Your task to perform on an android device: turn on location history Image 0: 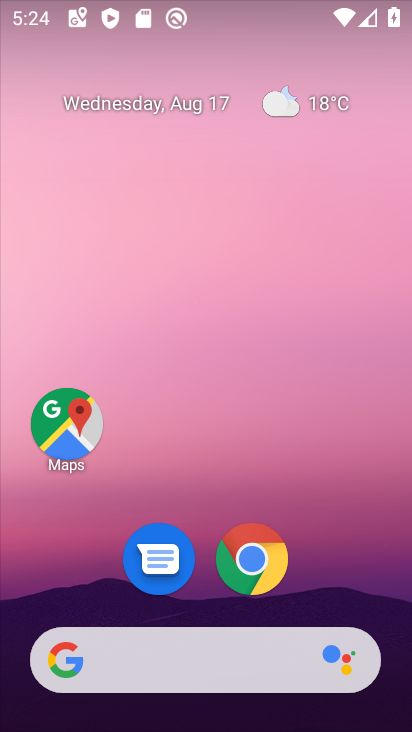
Step 0: drag from (238, 652) to (298, 175)
Your task to perform on an android device: turn on location history Image 1: 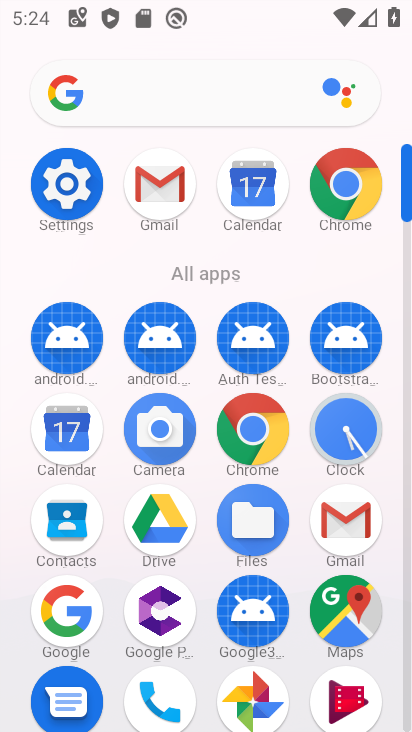
Step 1: click (63, 190)
Your task to perform on an android device: turn on location history Image 2: 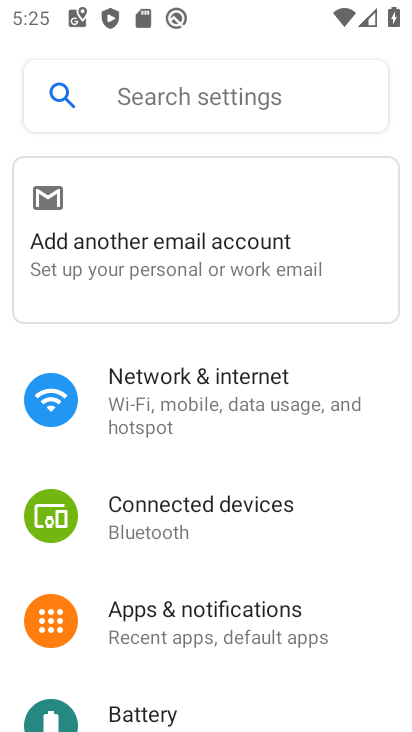
Step 2: drag from (278, 624) to (266, 170)
Your task to perform on an android device: turn on location history Image 3: 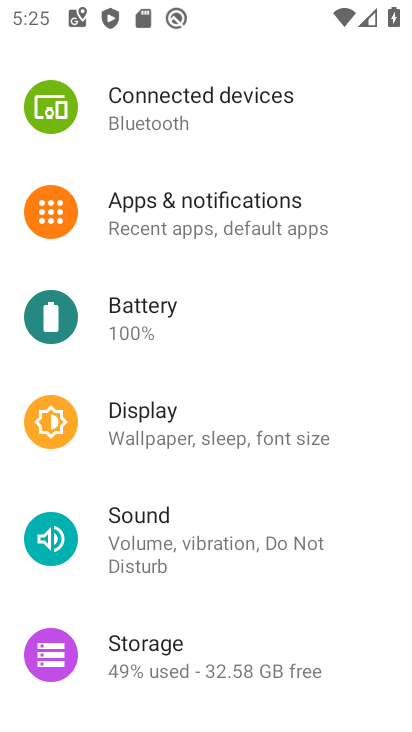
Step 3: drag from (165, 176) to (146, 606)
Your task to perform on an android device: turn on location history Image 4: 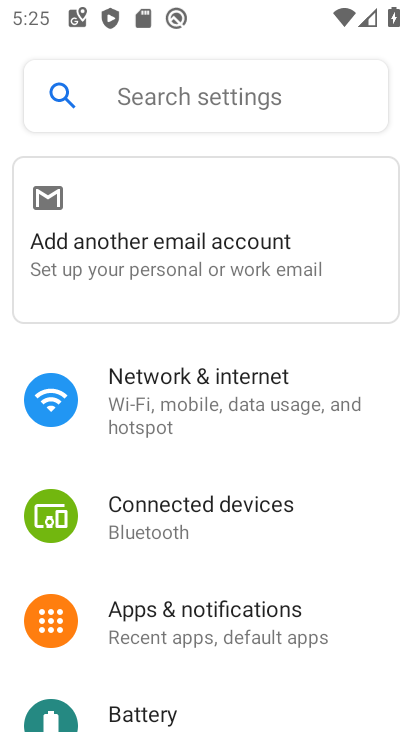
Step 4: drag from (146, 511) to (179, 45)
Your task to perform on an android device: turn on location history Image 5: 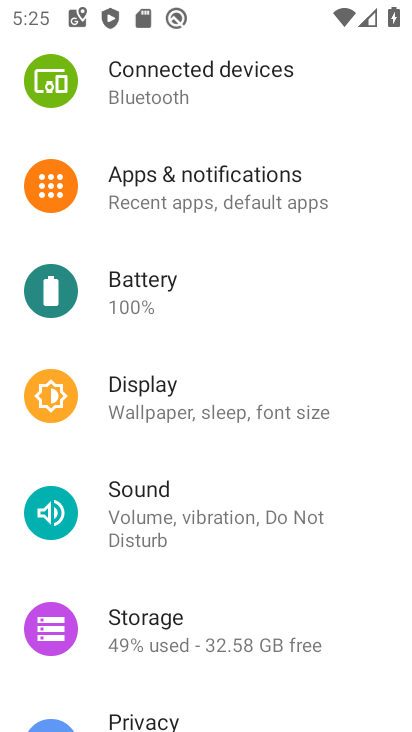
Step 5: drag from (181, 656) to (235, 223)
Your task to perform on an android device: turn on location history Image 6: 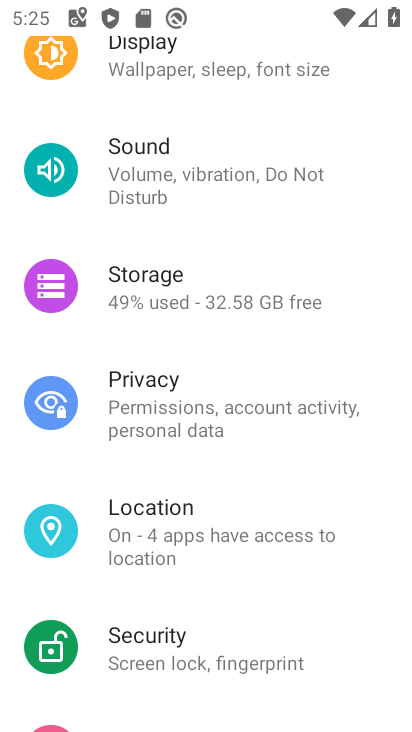
Step 6: click (169, 549)
Your task to perform on an android device: turn on location history Image 7: 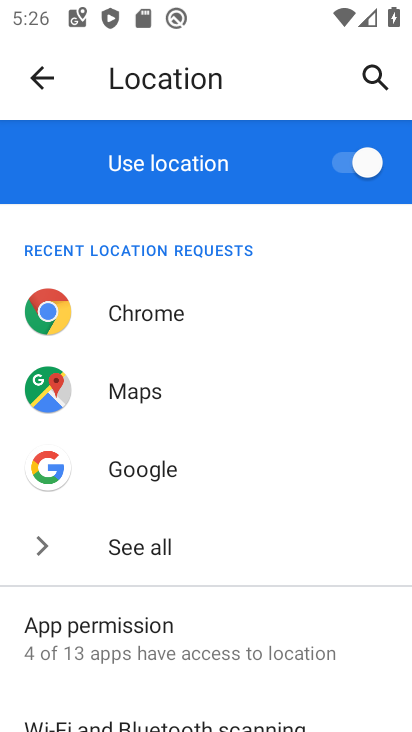
Step 7: drag from (134, 607) to (114, 5)
Your task to perform on an android device: turn on location history Image 8: 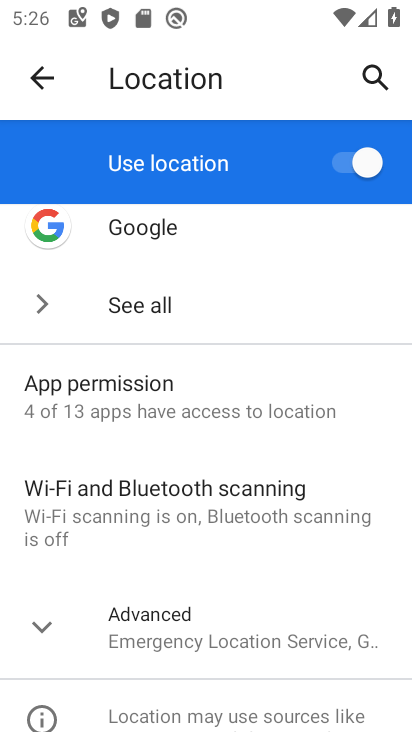
Step 8: click (184, 634)
Your task to perform on an android device: turn on location history Image 9: 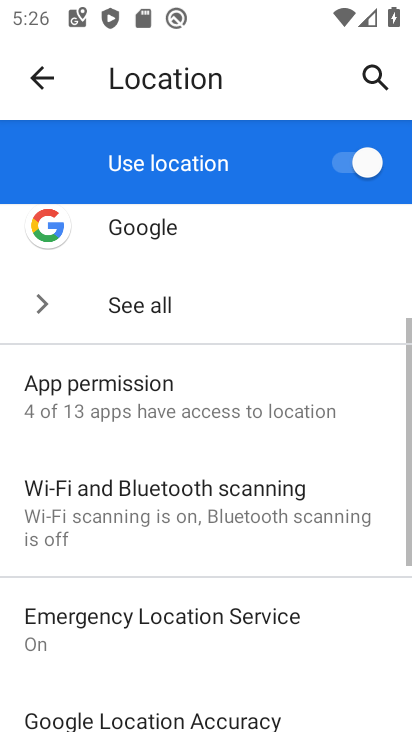
Step 9: drag from (224, 638) to (231, 259)
Your task to perform on an android device: turn on location history Image 10: 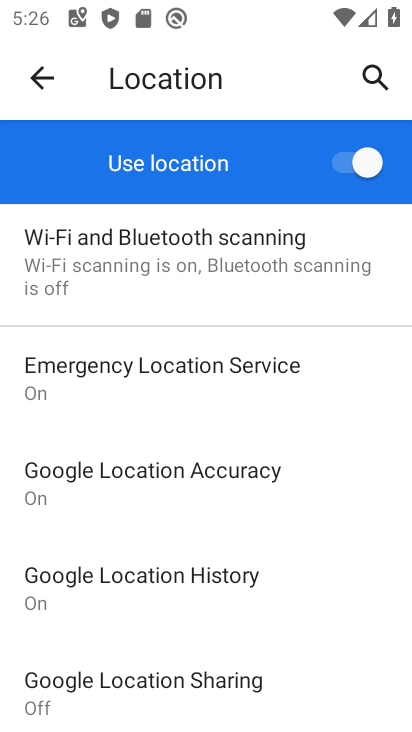
Step 10: click (188, 596)
Your task to perform on an android device: turn on location history Image 11: 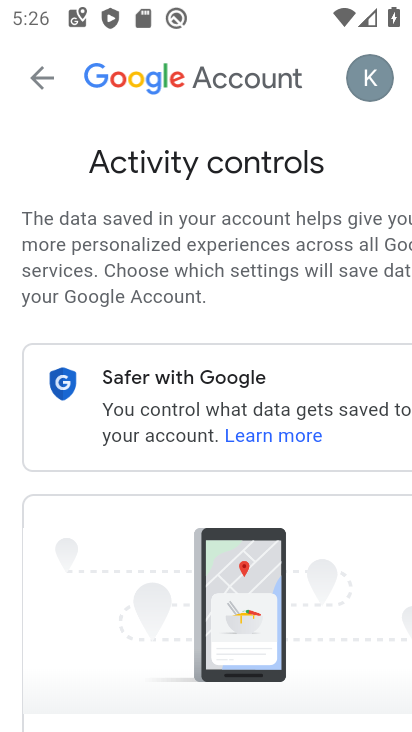
Step 11: task complete